Your task to perform on an android device: empty trash in google photos Image 0: 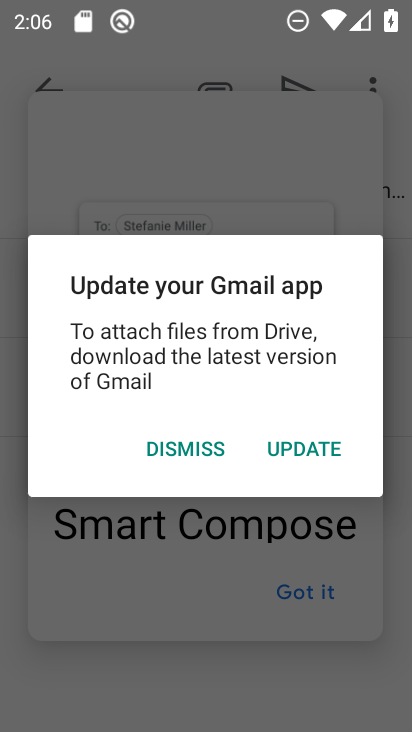
Step 0: press home button
Your task to perform on an android device: empty trash in google photos Image 1: 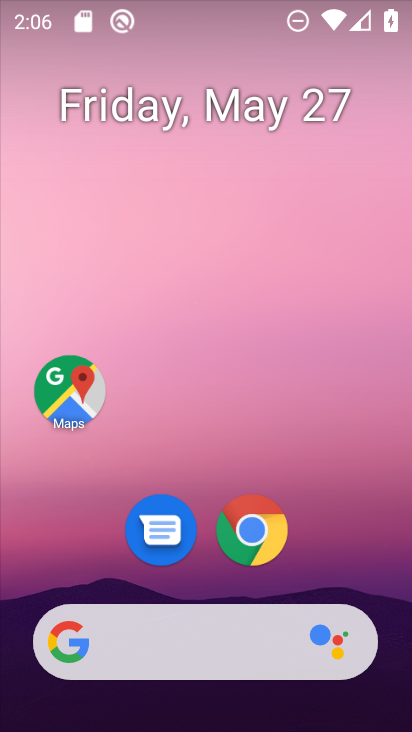
Step 1: drag from (127, 724) to (136, 31)
Your task to perform on an android device: empty trash in google photos Image 2: 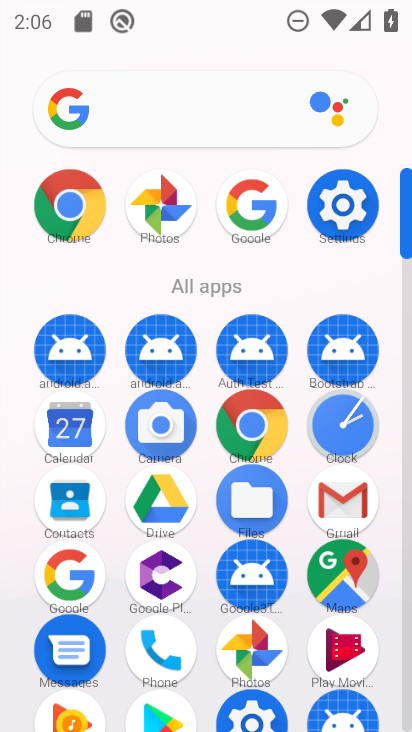
Step 2: click (164, 210)
Your task to perform on an android device: empty trash in google photos Image 3: 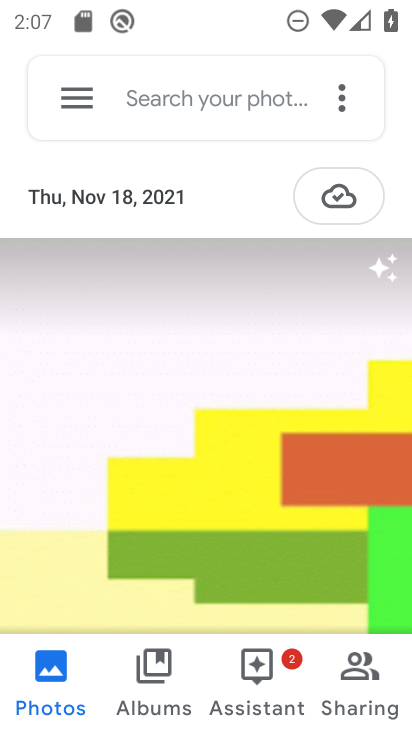
Step 3: click (57, 106)
Your task to perform on an android device: empty trash in google photos Image 4: 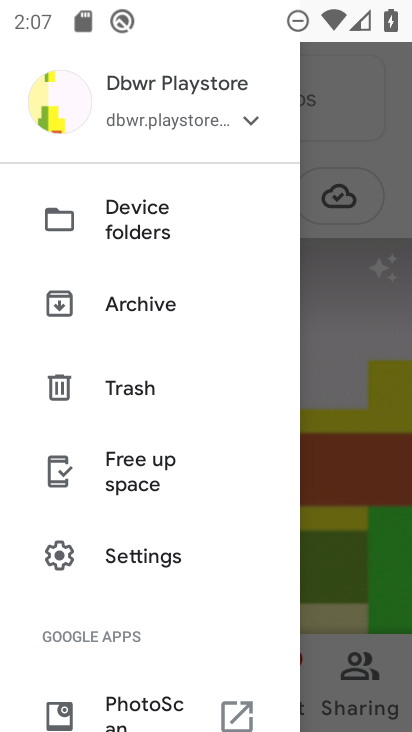
Step 4: click (112, 398)
Your task to perform on an android device: empty trash in google photos Image 5: 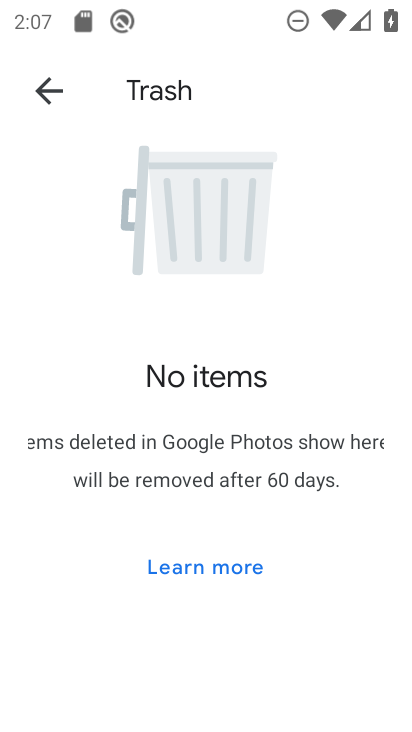
Step 5: task complete